Your task to perform on an android device: Open calendar and show me the first week of next month Image 0: 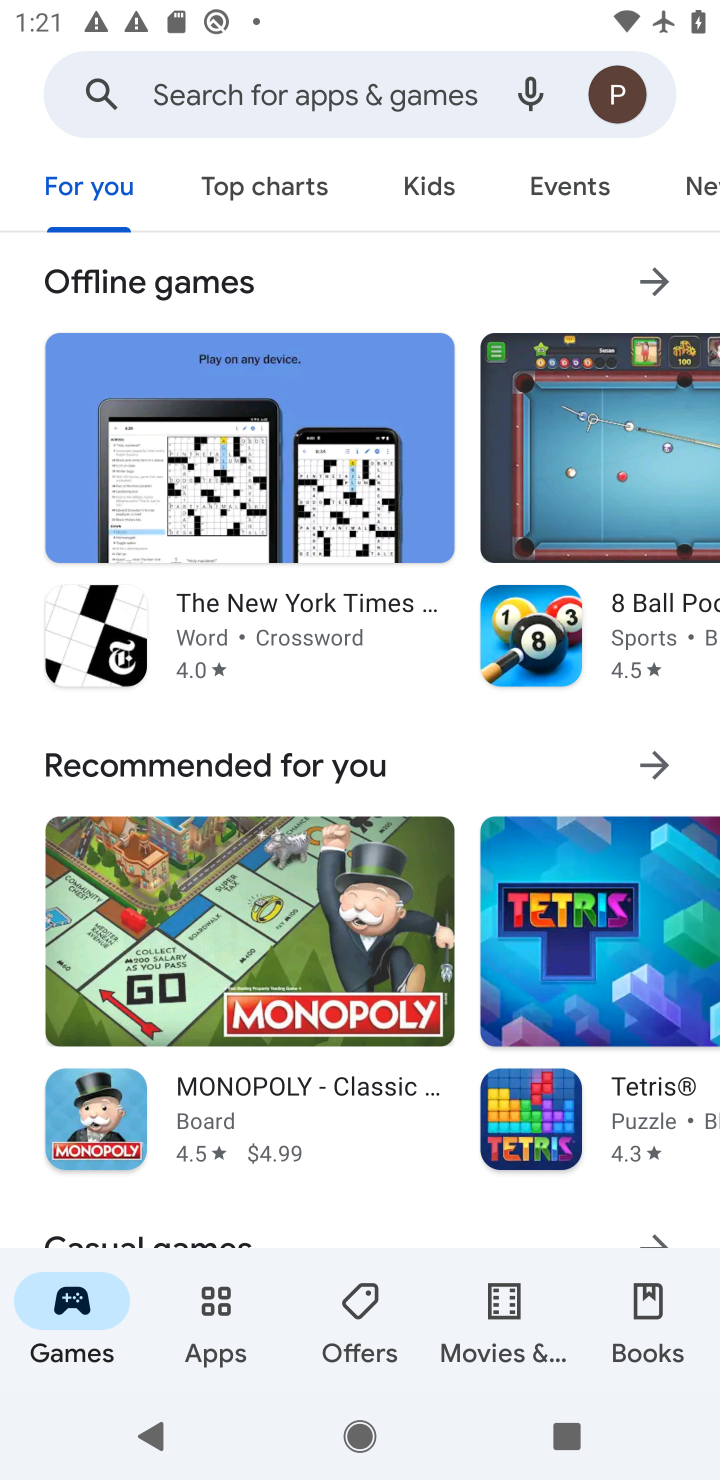
Step 0: click (353, 92)
Your task to perform on an android device: Open calendar and show me the first week of next month Image 1: 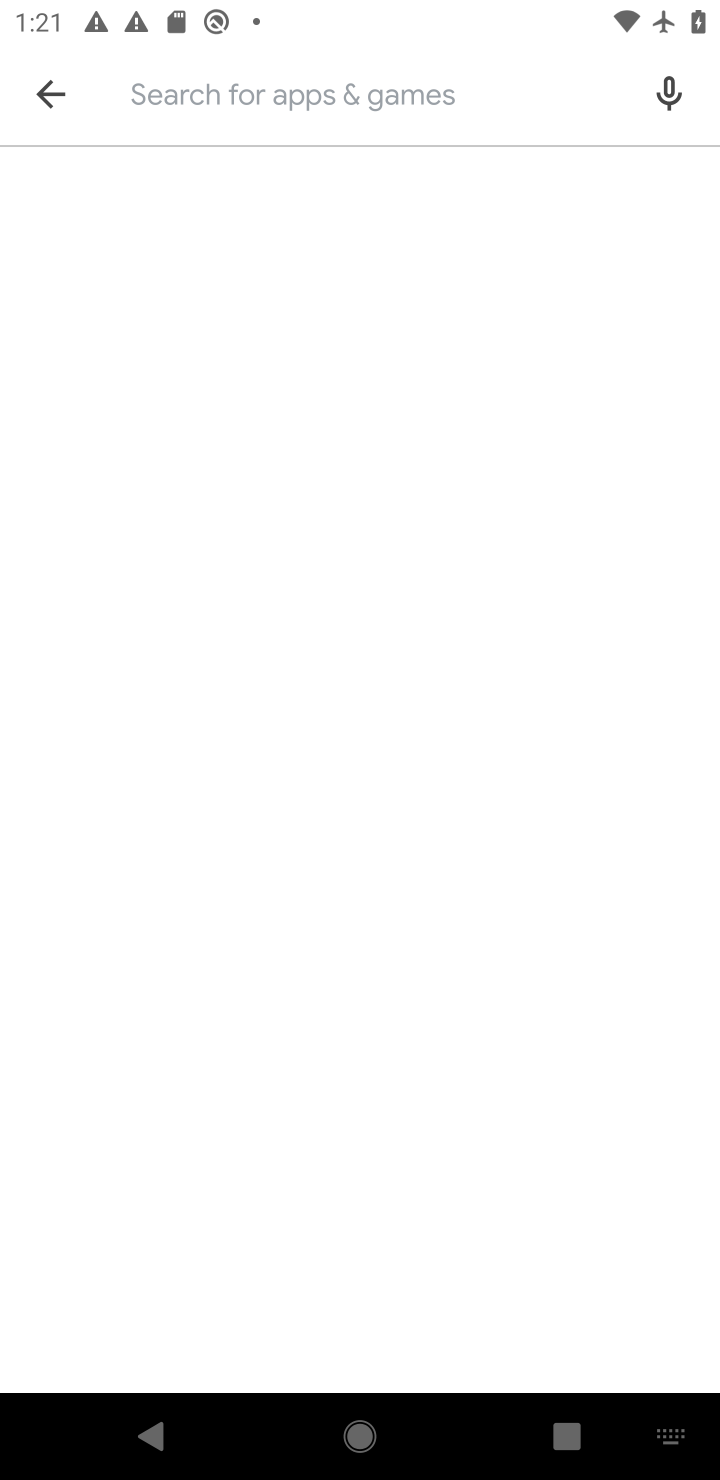
Step 1: press home button
Your task to perform on an android device: Open calendar and show me the first week of next month Image 2: 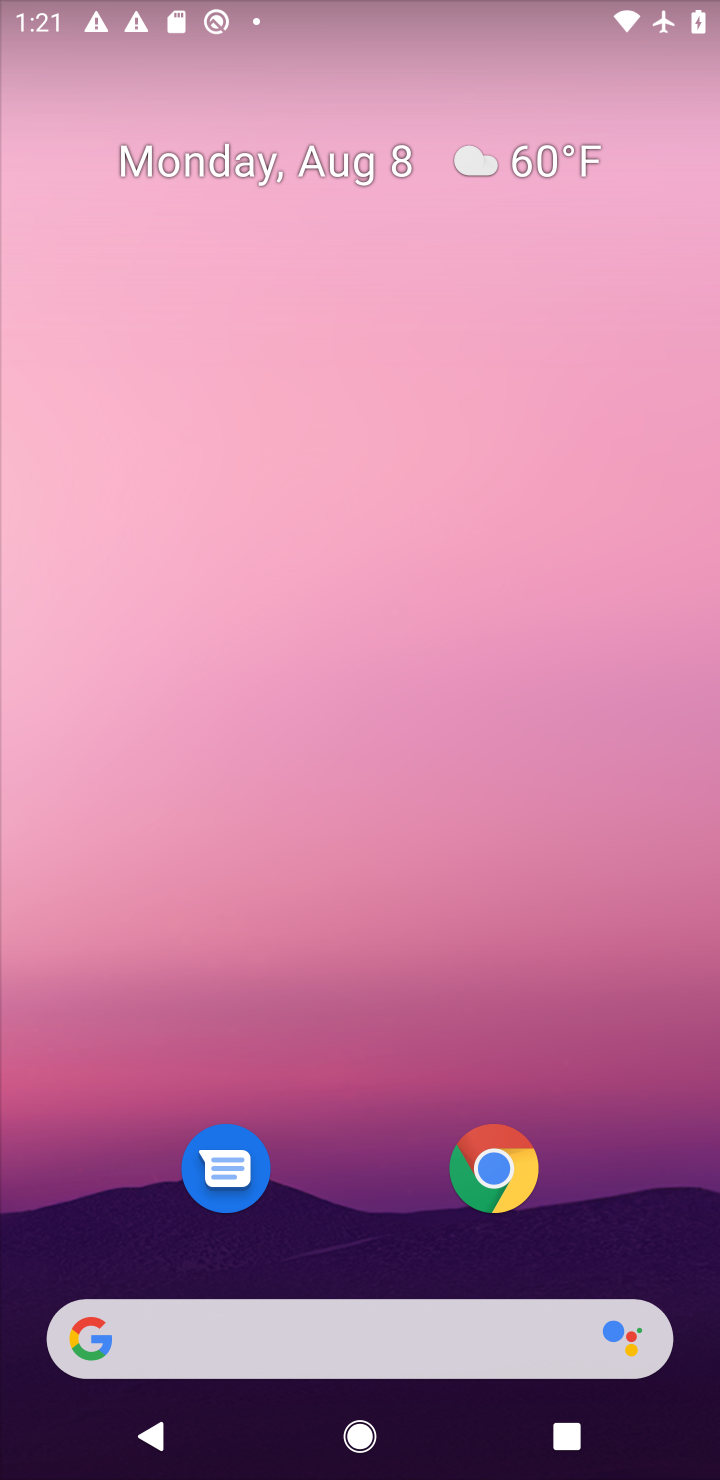
Step 2: drag from (343, 1242) to (388, 101)
Your task to perform on an android device: Open calendar and show me the first week of next month Image 3: 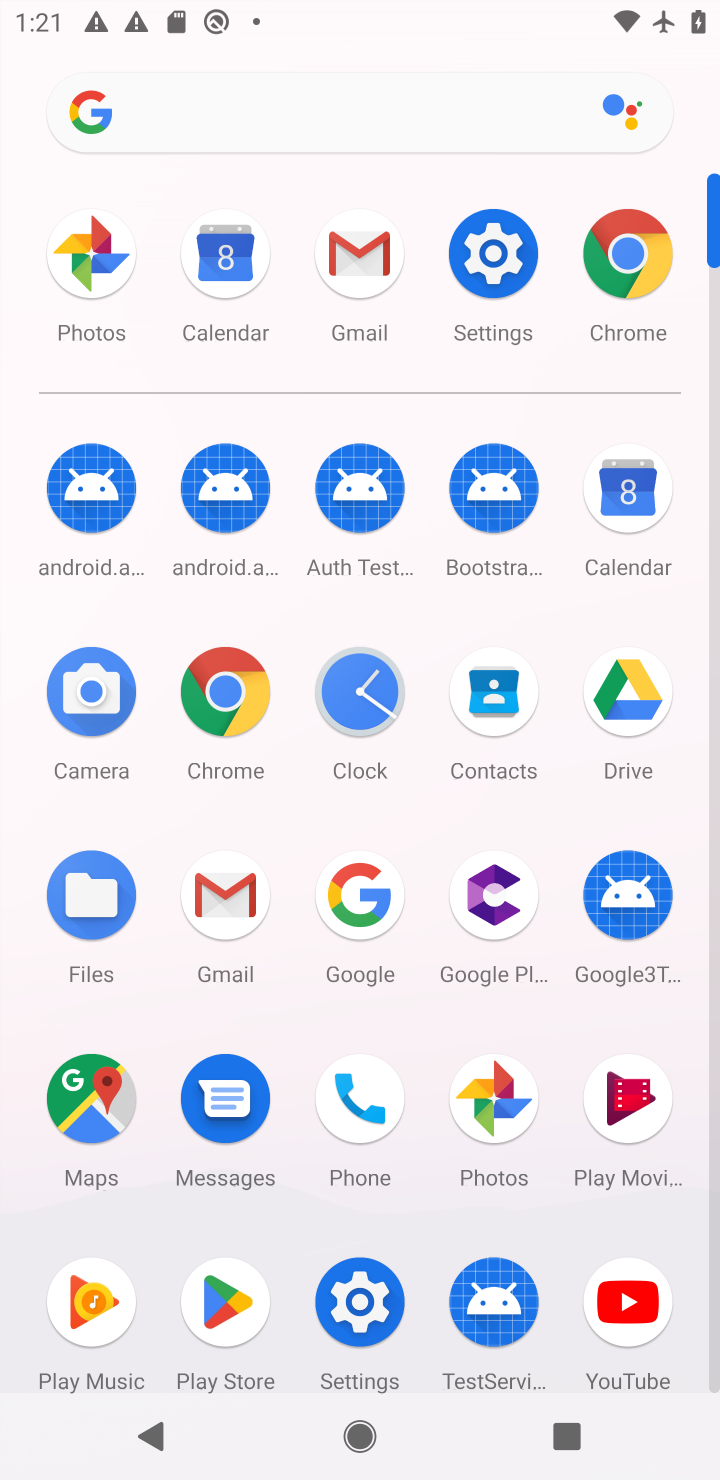
Step 3: click (220, 265)
Your task to perform on an android device: Open calendar and show me the first week of next month Image 4: 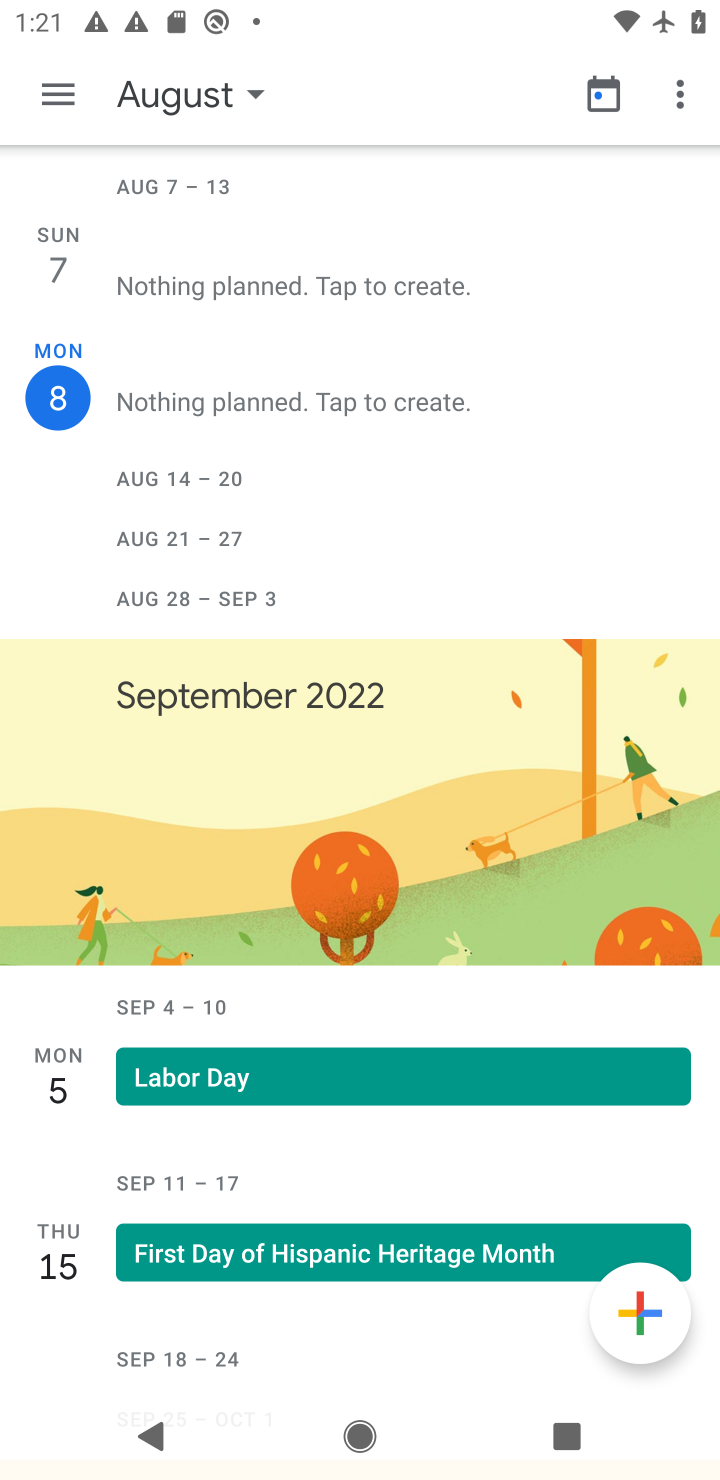
Step 4: task complete